Your task to perform on an android device: Go to battery settings Image 0: 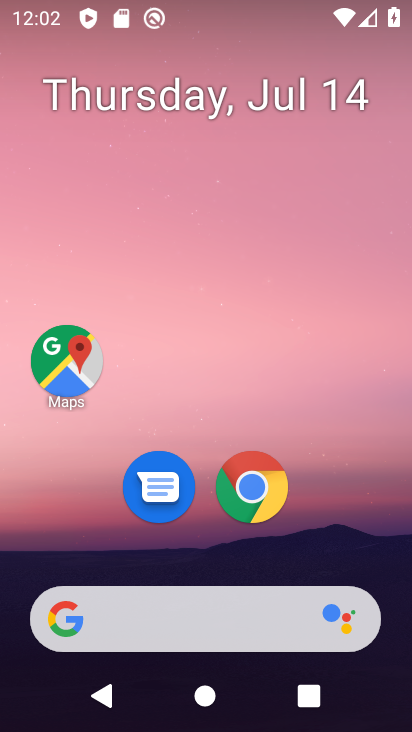
Step 0: drag from (205, 617) to (215, 264)
Your task to perform on an android device: Go to battery settings Image 1: 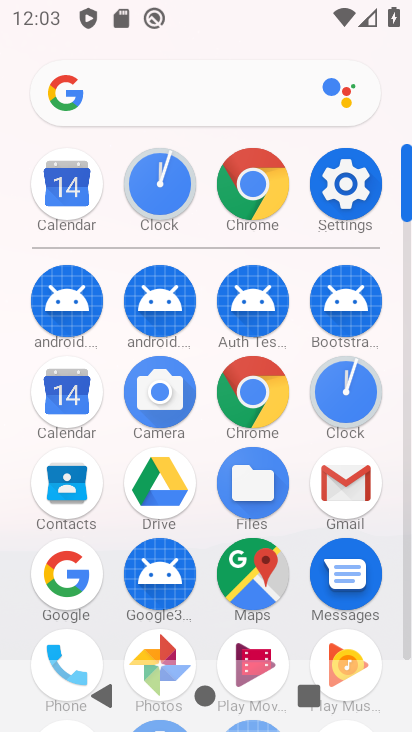
Step 1: click (361, 190)
Your task to perform on an android device: Go to battery settings Image 2: 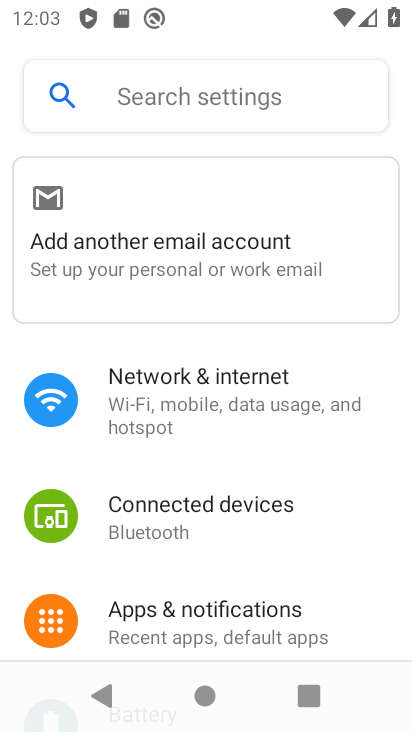
Step 2: drag from (187, 564) to (268, 218)
Your task to perform on an android device: Go to battery settings Image 3: 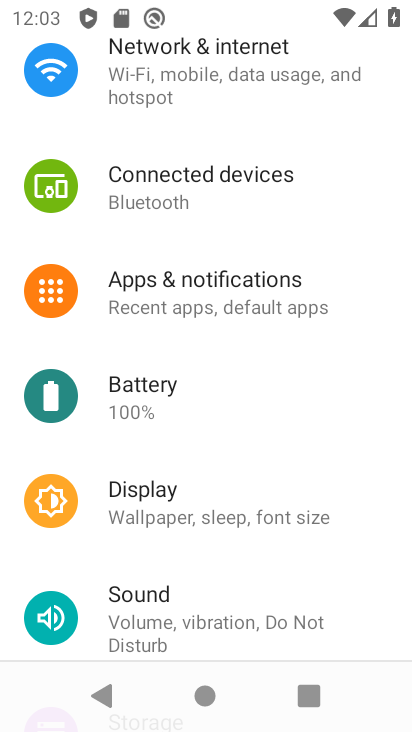
Step 3: click (158, 407)
Your task to perform on an android device: Go to battery settings Image 4: 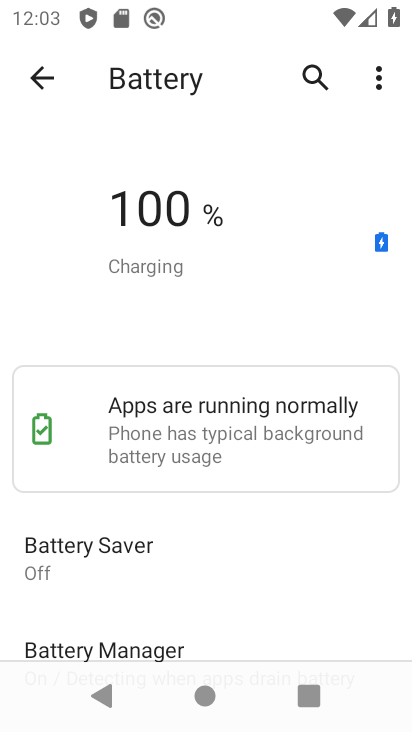
Step 4: task complete